Your task to perform on an android device: turn notification dots on Image 0: 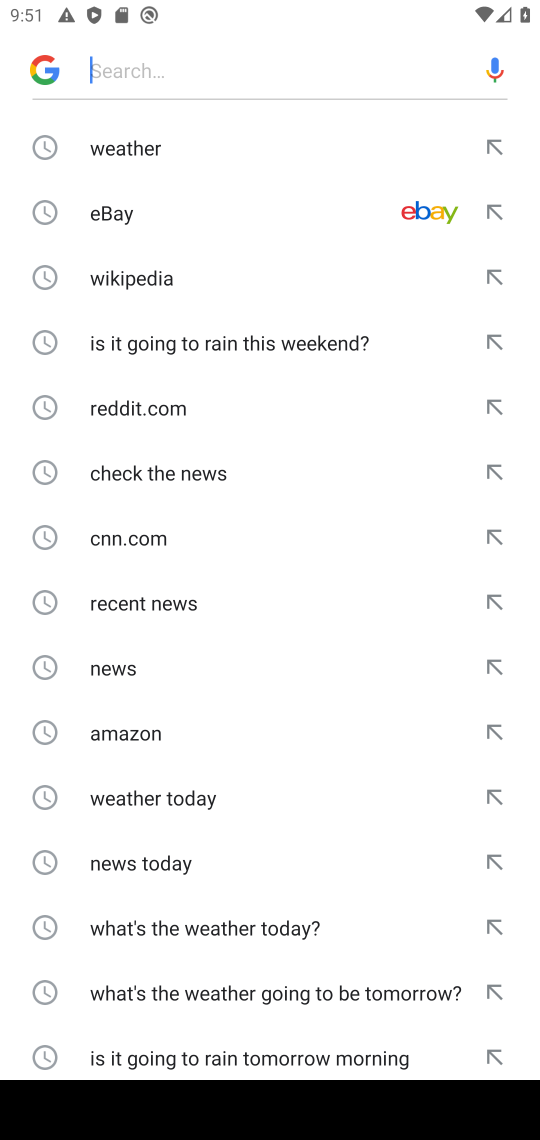
Step 0: task complete